Your task to perform on an android device: Go to display settings Image 0: 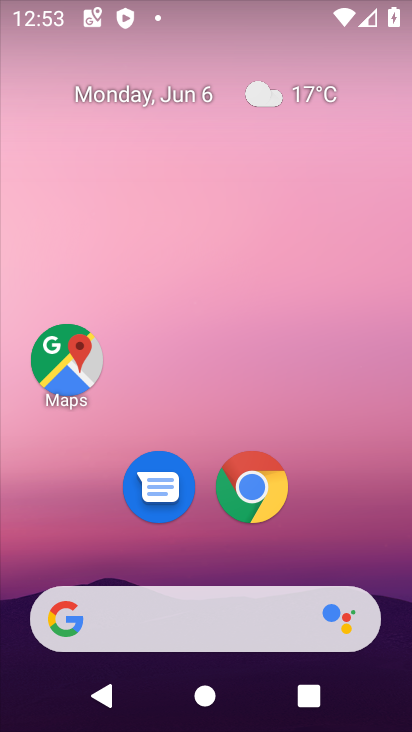
Step 0: drag from (154, 539) to (213, 97)
Your task to perform on an android device: Go to display settings Image 1: 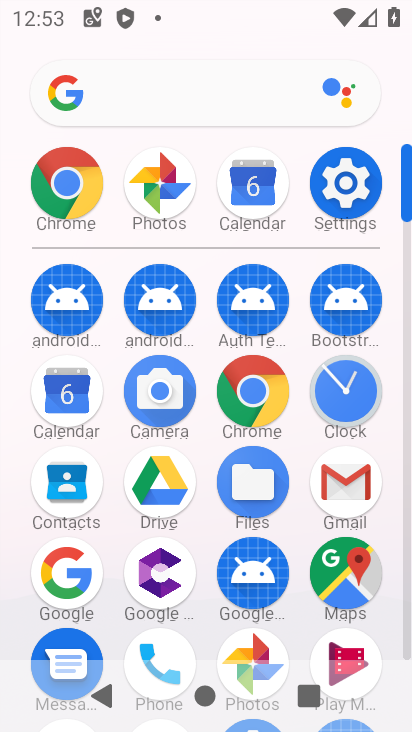
Step 1: click (319, 161)
Your task to perform on an android device: Go to display settings Image 2: 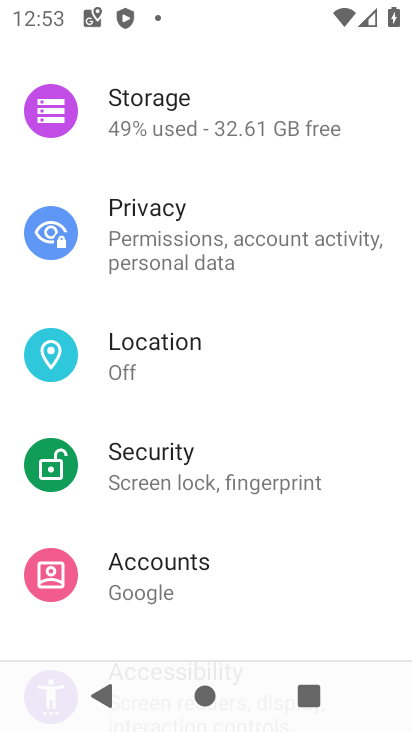
Step 2: drag from (178, 556) to (236, 90)
Your task to perform on an android device: Go to display settings Image 3: 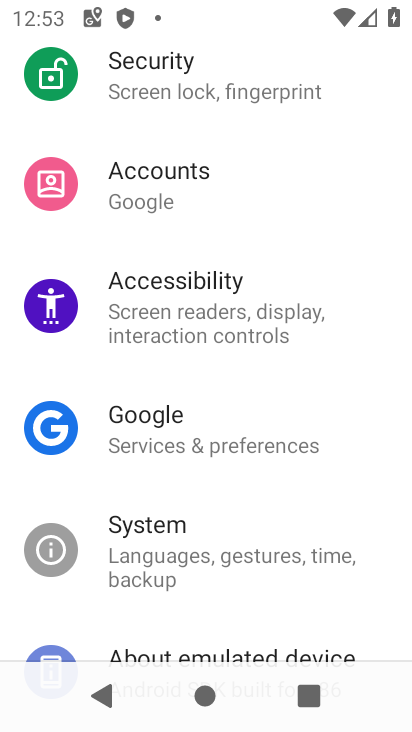
Step 3: drag from (252, 596) to (318, 79)
Your task to perform on an android device: Go to display settings Image 4: 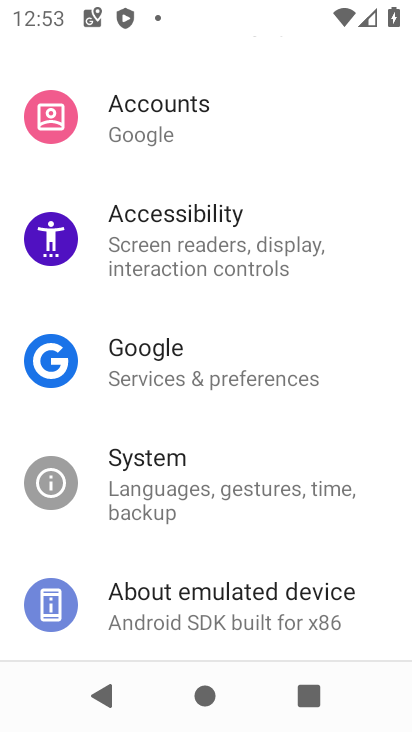
Step 4: drag from (236, 152) to (232, 539)
Your task to perform on an android device: Go to display settings Image 5: 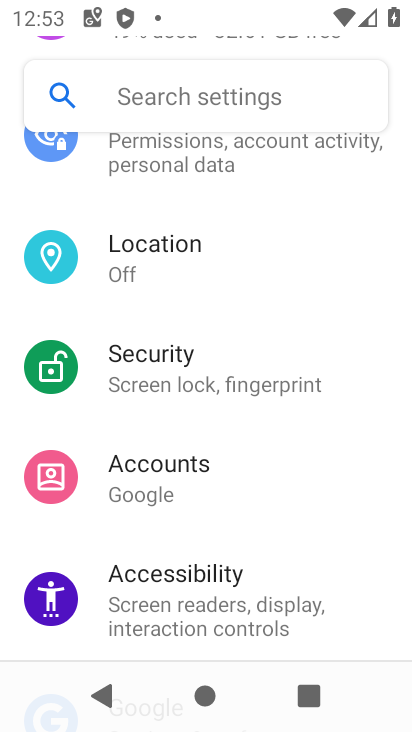
Step 5: drag from (247, 355) to (236, 674)
Your task to perform on an android device: Go to display settings Image 6: 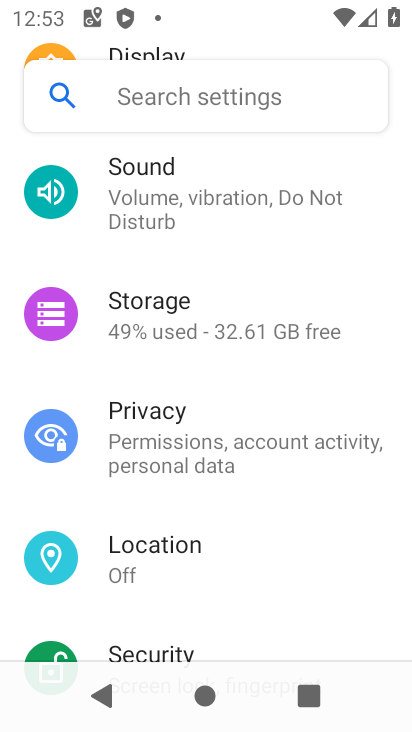
Step 6: drag from (168, 251) to (214, 621)
Your task to perform on an android device: Go to display settings Image 7: 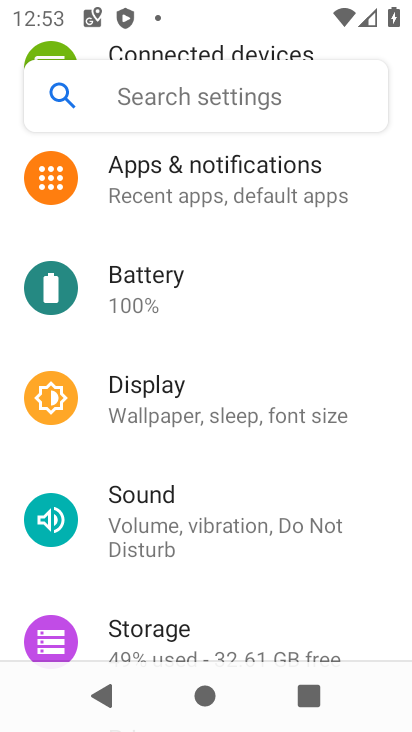
Step 7: click (156, 378)
Your task to perform on an android device: Go to display settings Image 8: 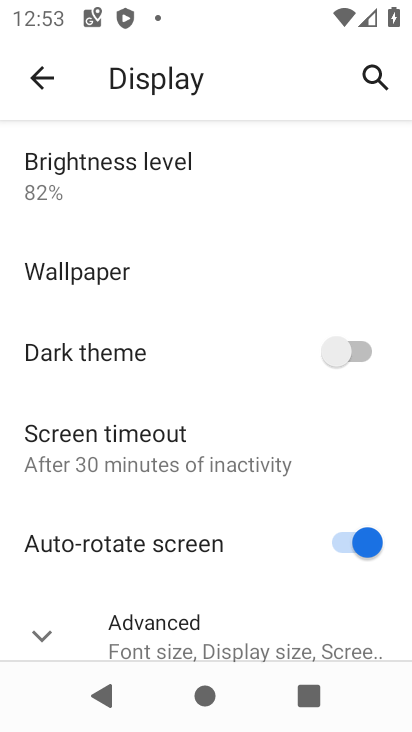
Step 8: task complete